Your task to perform on an android device: find which apps use the phone's location Image 0: 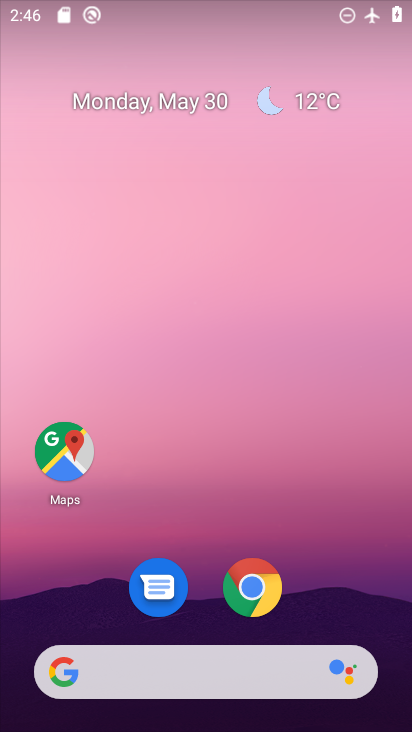
Step 0: drag from (207, 594) to (270, 137)
Your task to perform on an android device: find which apps use the phone's location Image 1: 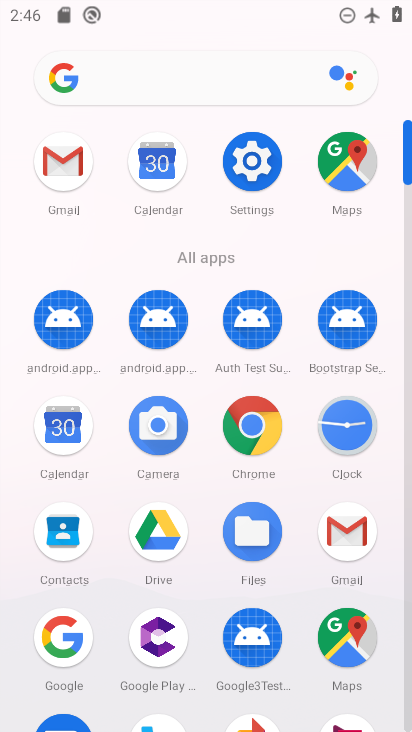
Step 1: click (253, 163)
Your task to perform on an android device: find which apps use the phone's location Image 2: 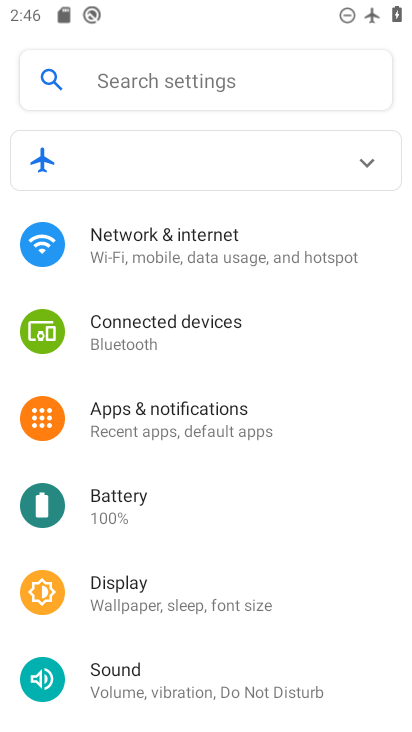
Step 2: drag from (160, 478) to (232, 119)
Your task to perform on an android device: find which apps use the phone's location Image 3: 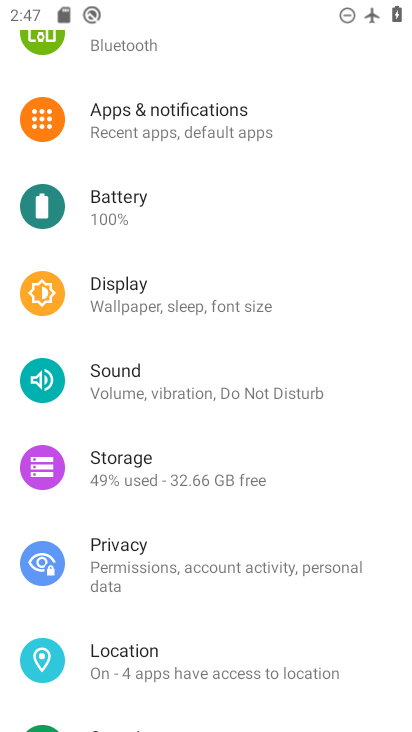
Step 3: click (144, 666)
Your task to perform on an android device: find which apps use the phone's location Image 4: 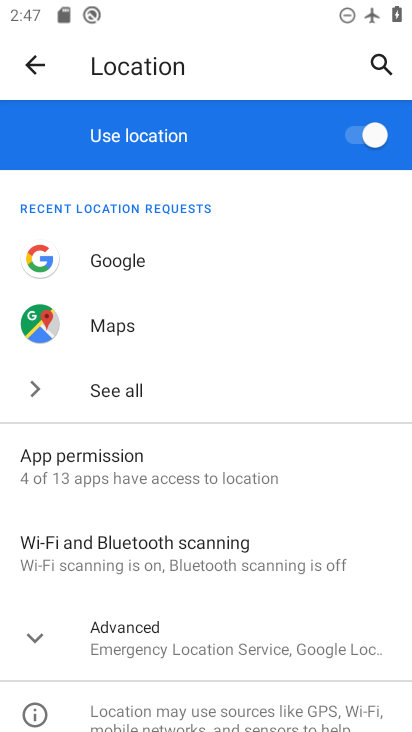
Step 4: task complete